Your task to perform on an android device: turn off translation in the chrome app Image 0: 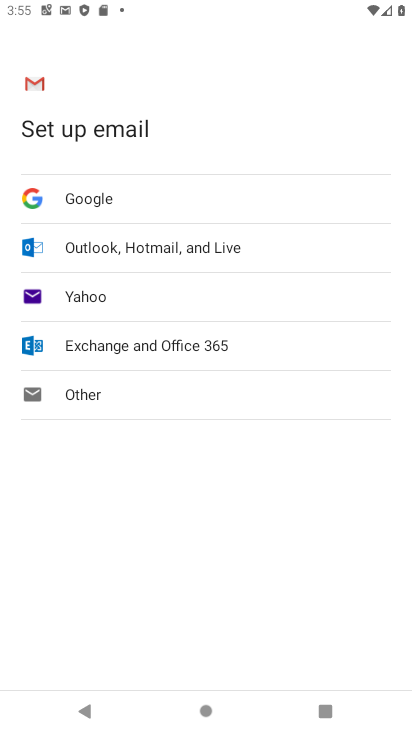
Step 0: press home button
Your task to perform on an android device: turn off translation in the chrome app Image 1: 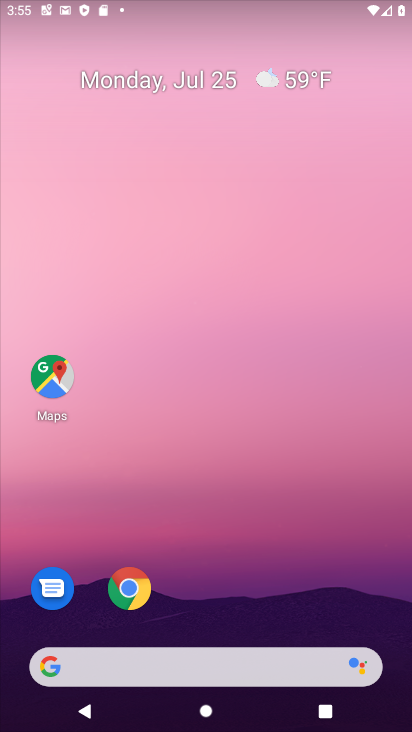
Step 1: drag from (315, 588) to (302, 88)
Your task to perform on an android device: turn off translation in the chrome app Image 2: 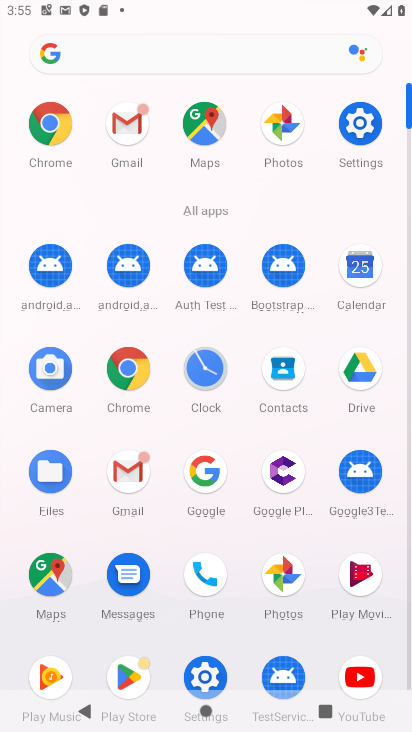
Step 2: click (125, 361)
Your task to perform on an android device: turn off translation in the chrome app Image 3: 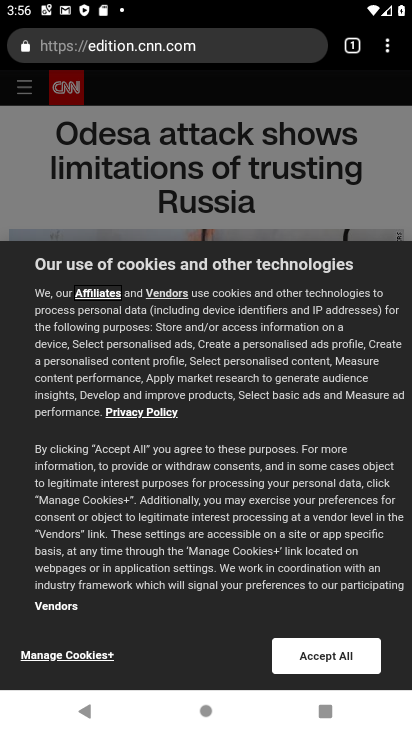
Step 3: drag from (390, 43) to (227, 504)
Your task to perform on an android device: turn off translation in the chrome app Image 4: 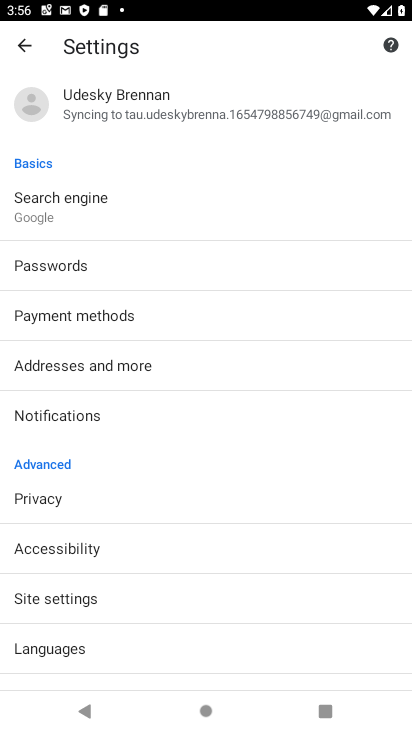
Step 4: click (95, 646)
Your task to perform on an android device: turn off translation in the chrome app Image 5: 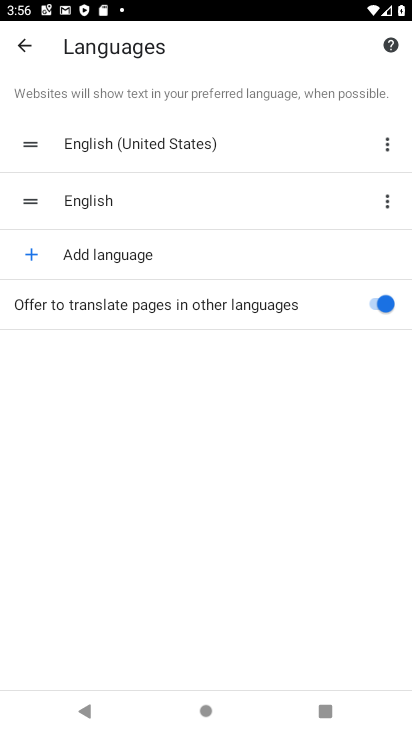
Step 5: click (350, 298)
Your task to perform on an android device: turn off translation in the chrome app Image 6: 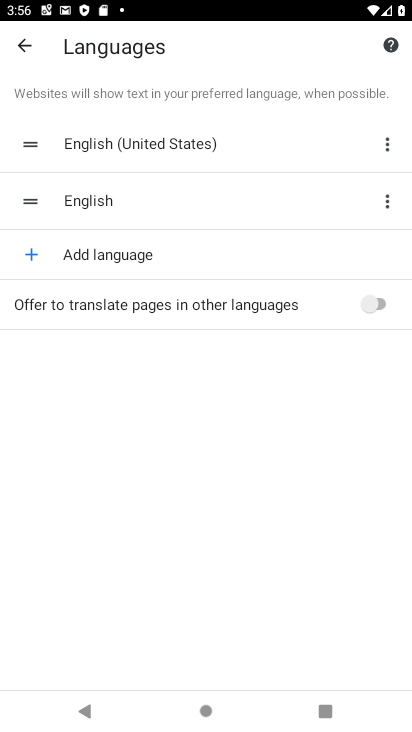
Step 6: task complete